Your task to perform on an android device: turn notification dots on Image 0: 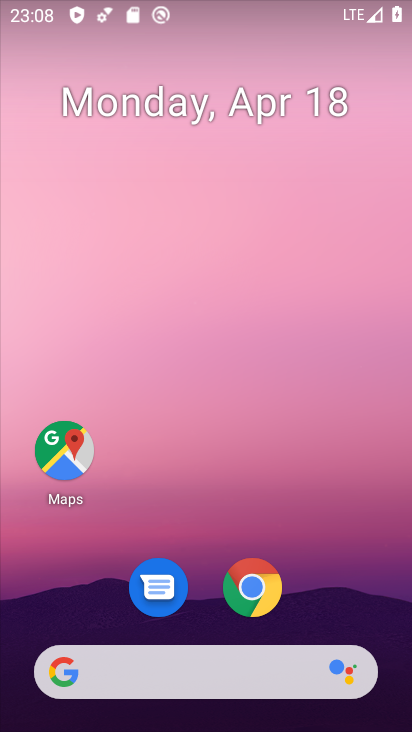
Step 0: drag from (393, 491) to (406, 138)
Your task to perform on an android device: turn notification dots on Image 1: 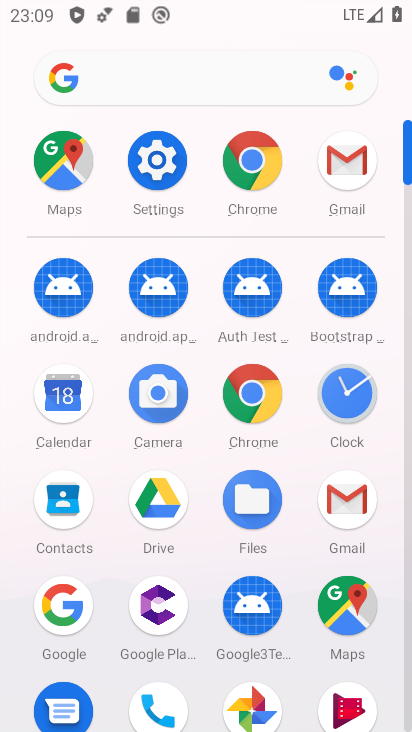
Step 1: click (154, 157)
Your task to perform on an android device: turn notification dots on Image 2: 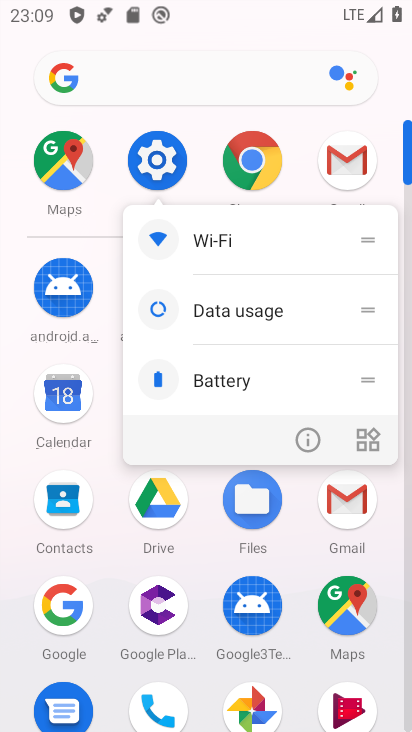
Step 2: click (154, 157)
Your task to perform on an android device: turn notification dots on Image 3: 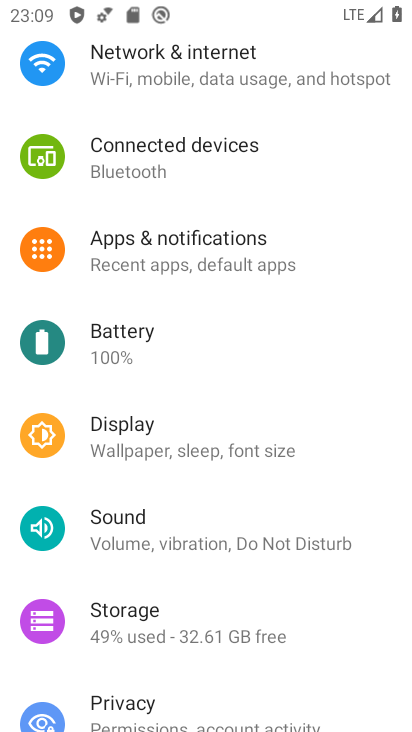
Step 3: click (165, 233)
Your task to perform on an android device: turn notification dots on Image 4: 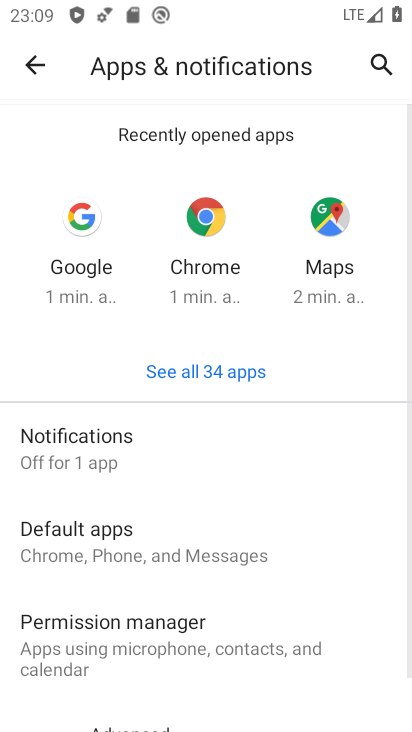
Step 4: drag from (334, 546) to (345, 158)
Your task to perform on an android device: turn notification dots on Image 5: 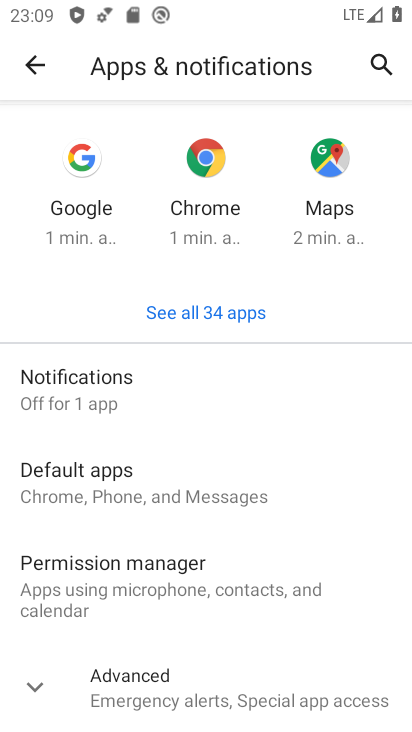
Step 5: click (282, 676)
Your task to perform on an android device: turn notification dots on Image 6: 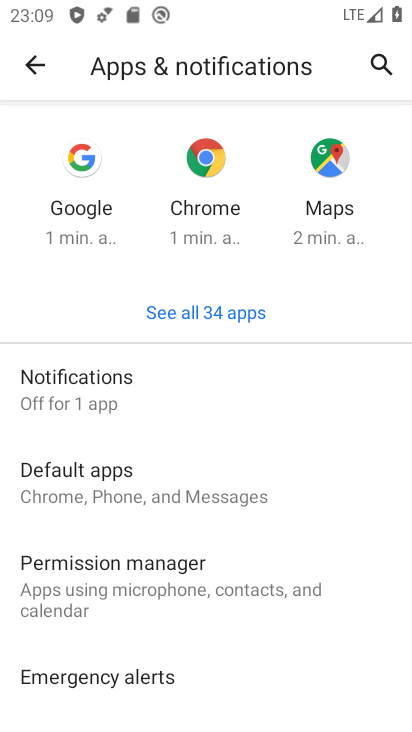
Step 6: drag from (265, 649) to (248, 267)
Your task to perform on an android device: turn notification dots on Image 7: 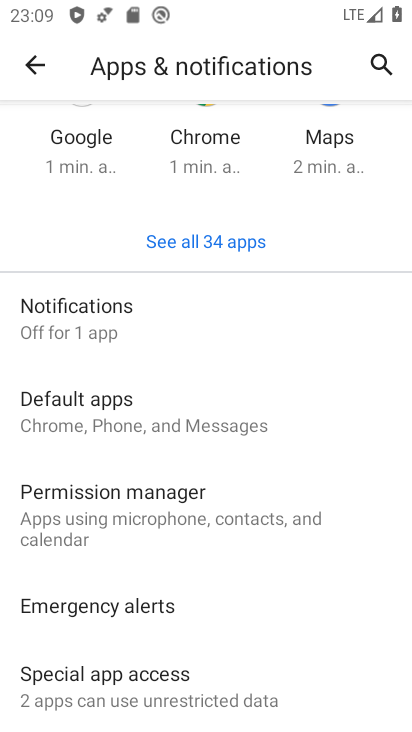
Step 7: drag from (261, 637) to (257, 321)
Your task to perform on an android device: turn notification dots on Image 8: 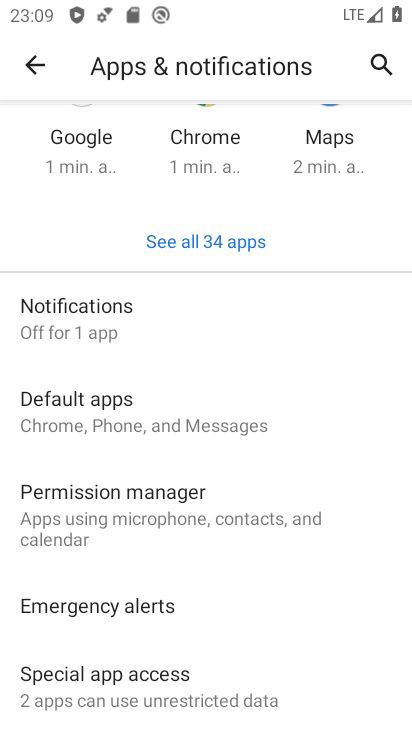
Step 8: click (63, 327)
Your task to perform on an android device: turn notification dots on Image 9: 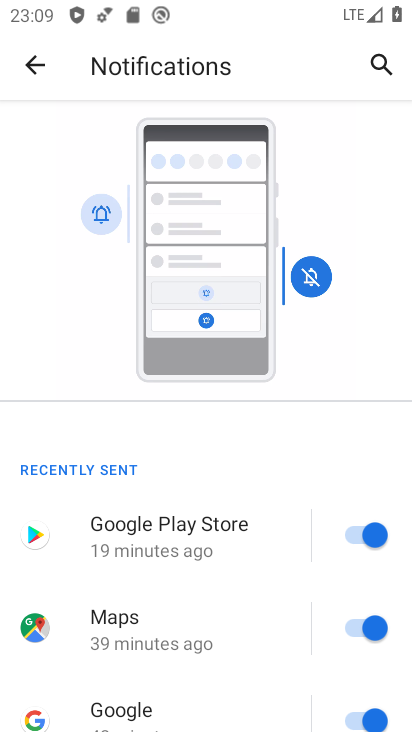
Step 9: drag from (203, 581) to (300, 126)
Your task to perform on an android device: turn notification dots on Image 10: 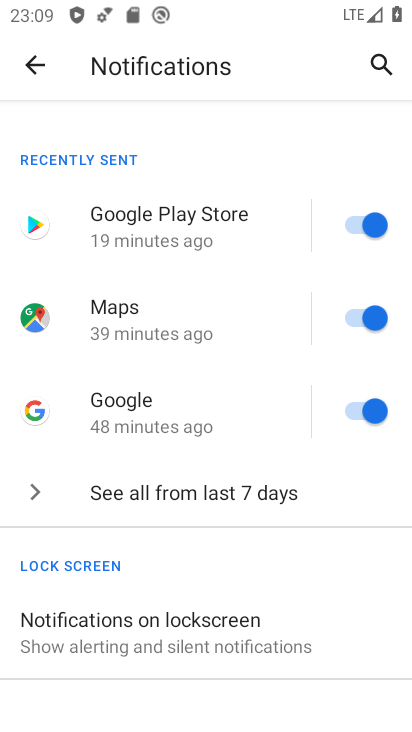
Step 10: drag from (351, 609) to (265, 228)
Your task to perform on an android device: turn notification dots on Image 11: 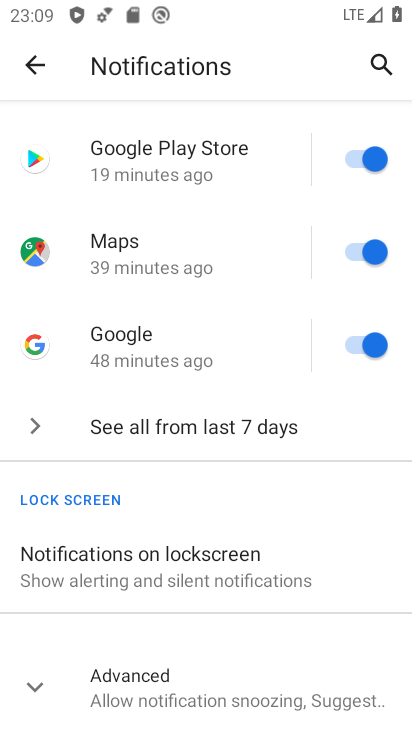
Step 11: click (231, 659)
Your task to perform on an android device: turn notification dots on Image 12: 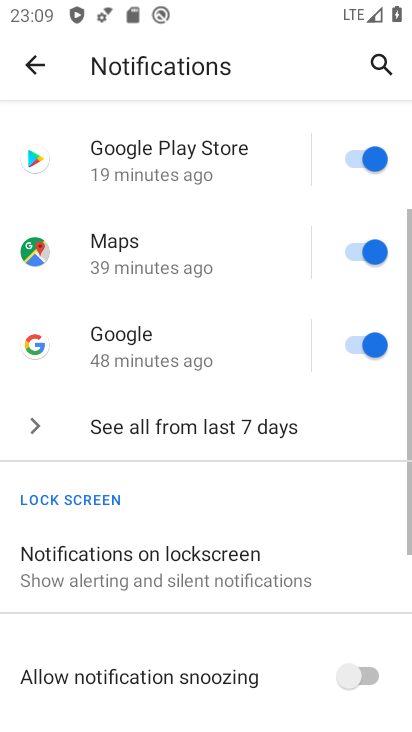
Step 12: drag from (271, 665) to (236, 218)
Your task to perform on an android device: turn notification dots on Image 13: 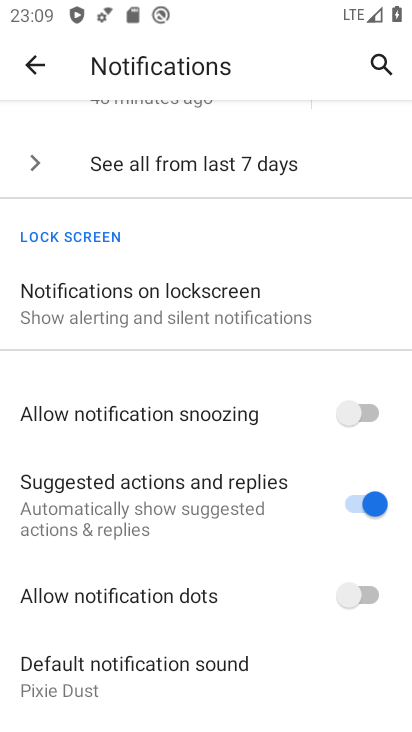
Step 13: click (370, 602)
Your task to perform on an android device: turn notification dots on Image 14: 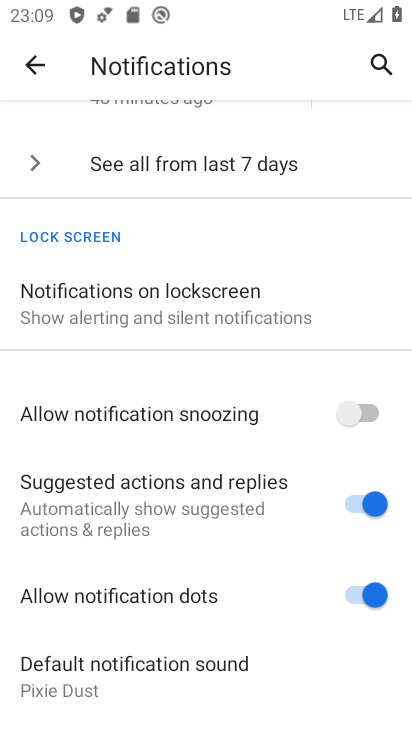
Step 14: task complete